Your task to perform on an android device: Open Google Image 0: 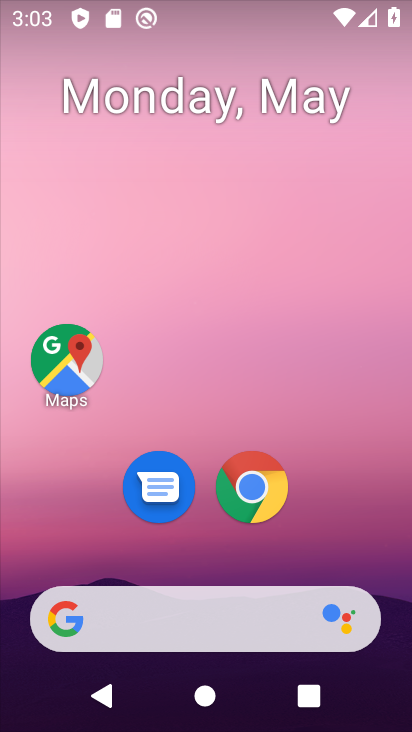
Step 0: click (202, 271)
Your task to perform on an android device: Open Google Image 1: 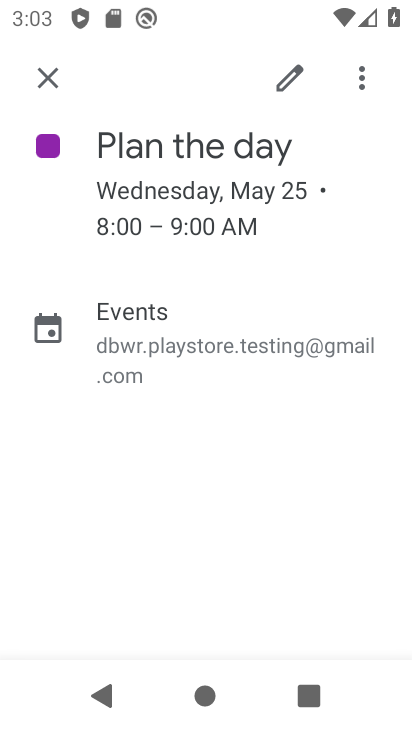
Step 1: press home button
Your task to perform on an android device: Open Google Image 2: 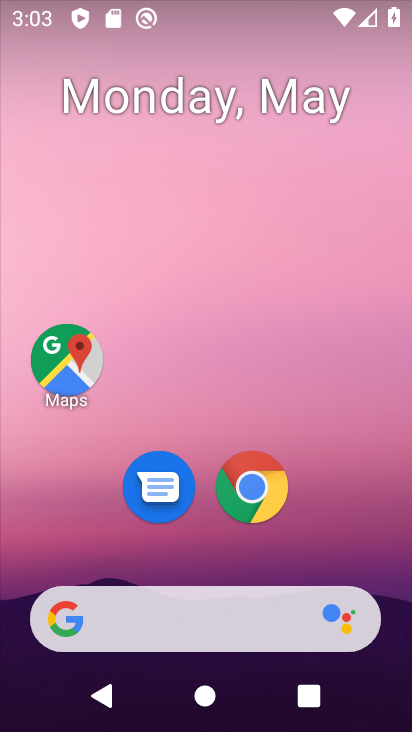
Step 2: drag from (207, 592) to (178, 131)
Your task to perform on an android device: Open Google Image 3: 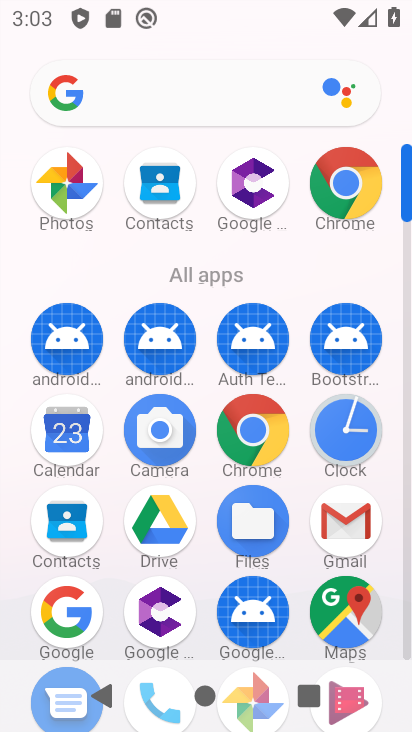
Step 3: click (47, 612)
Your task to perform on an android device: Open Google Image 4: 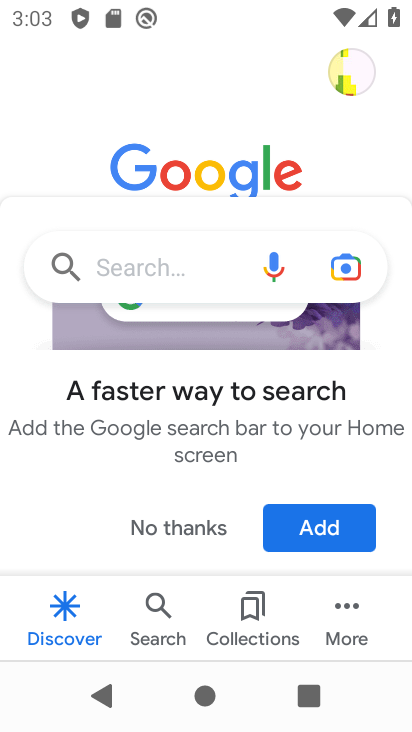
Step 4: task complete